Your task to perform on an android device: change notification settings in the gmail app Image 0: 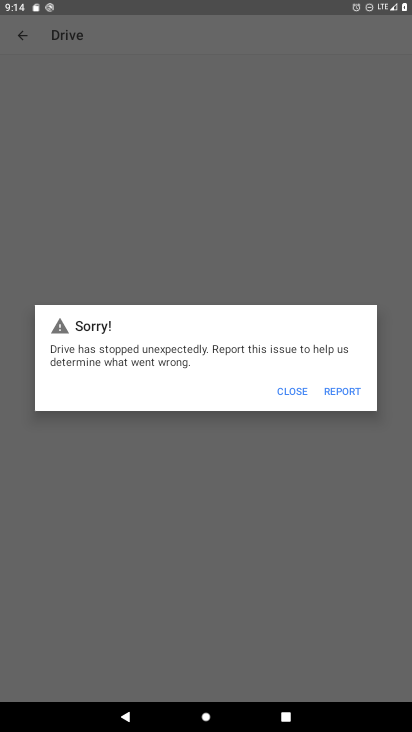
Step 0: press home button
Your task to perform on an android device: change notification settings in the gmail app Image 1: 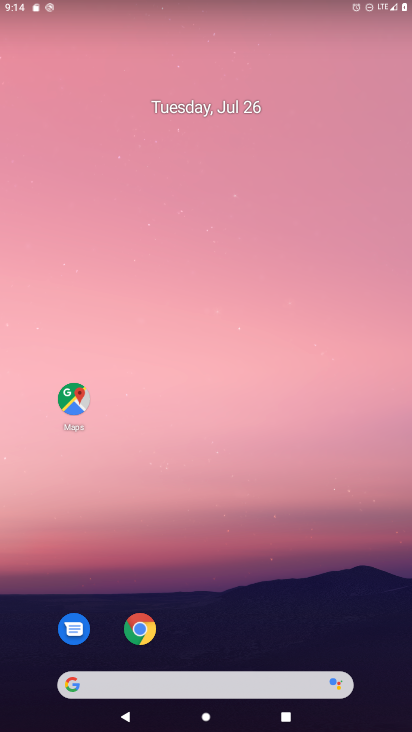
Step 1: drag from (197, 652) to (197, 55)
Your task to perform on an android device: change notification settings in the gmail app Image 2: 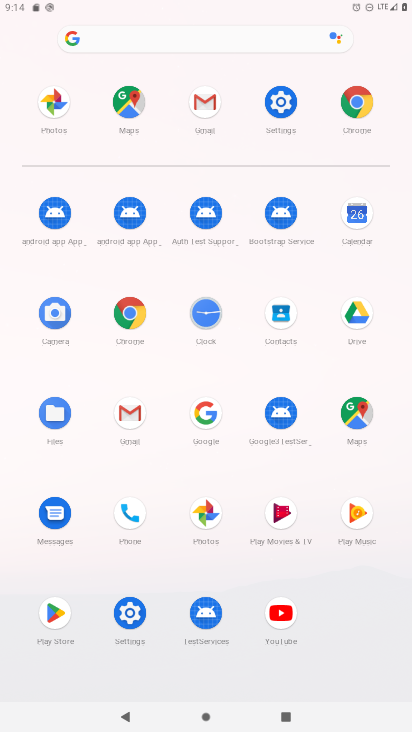
Step 2: click (122, 414)
Your task to perform on an android device: change notification settings in the gmail app Image 3: 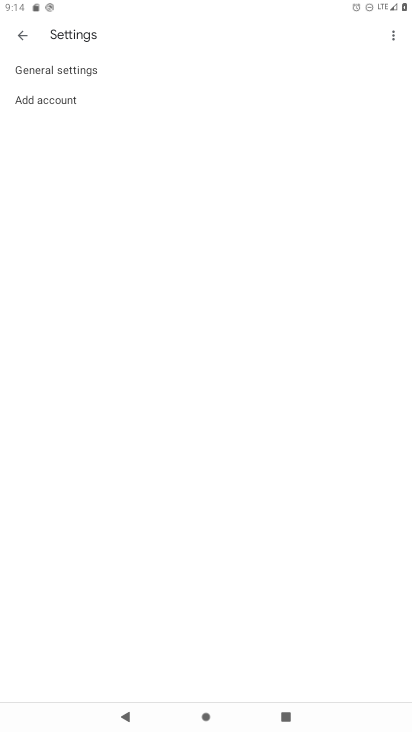
Step 3: click (24, 29)
Your task to perform on an android device: change notification settings in the gmail app Image 4: 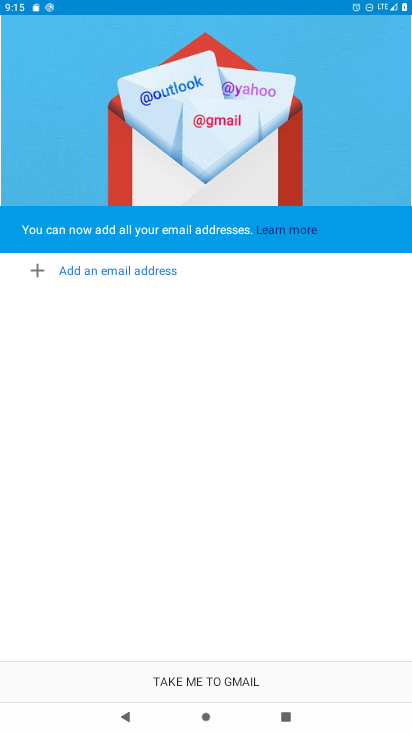
Step 4: click (184, 676)
Your task to perform on an android device: change notification settings in the gmail app Image 5: 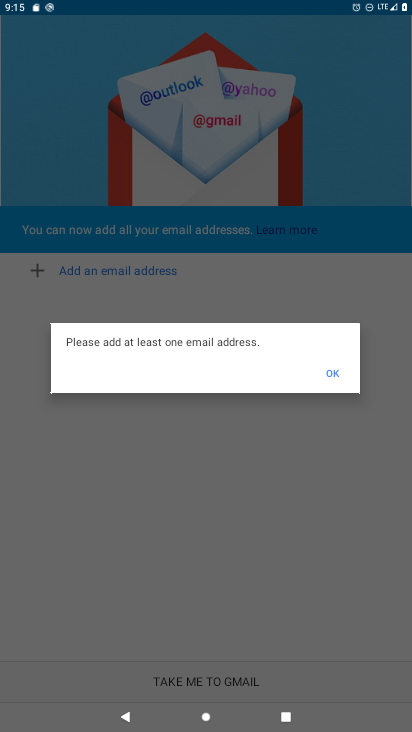
Step 5: task complete